Your task to perform on an android device: Open notification settings Image 0: 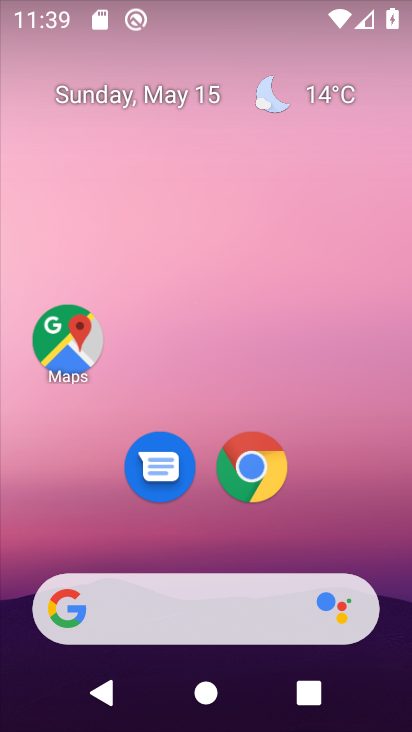
Step 0: drag from (207, 538) to (222, 220)
Your task to perform on an android device: Open notification settings Image 1: 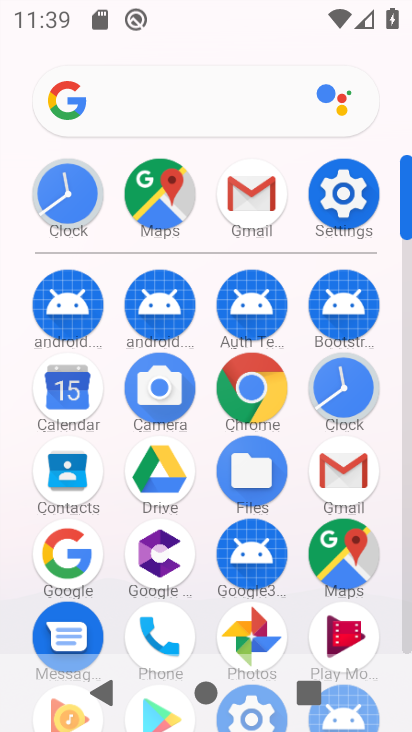
Step 1: click (343, 187)
Your task to perform on an android device: Open notification settings Image 2: 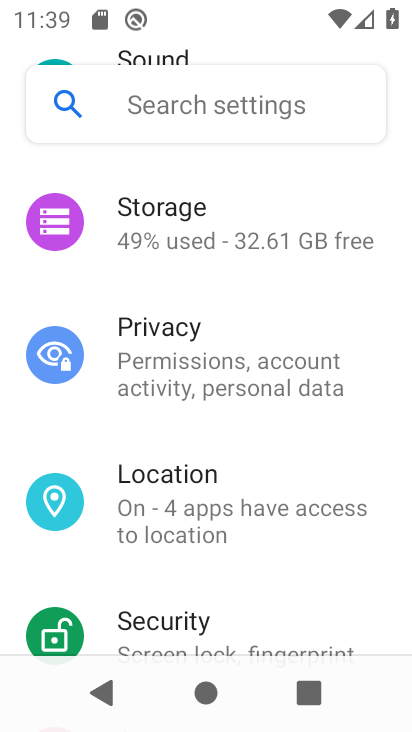
Step 2: drag from (194, 188) to (190, 731)
Your task to perform on an android device: Open notification settings Image 3: 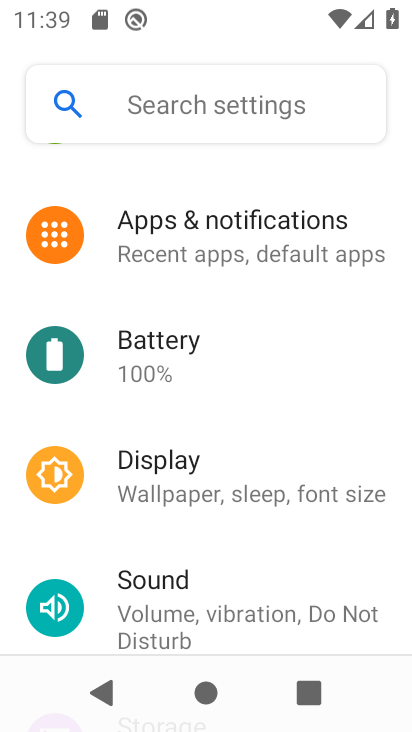
Step 3: click (191, 229)
Your task to perform on an android device: Open notification settings Image 4: 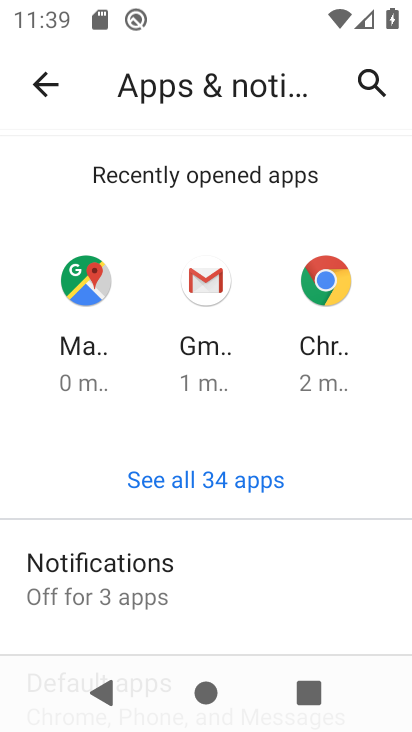
Step 4: click (188, 580)
Your task to perform on an android device: Open notification settings Image 5: 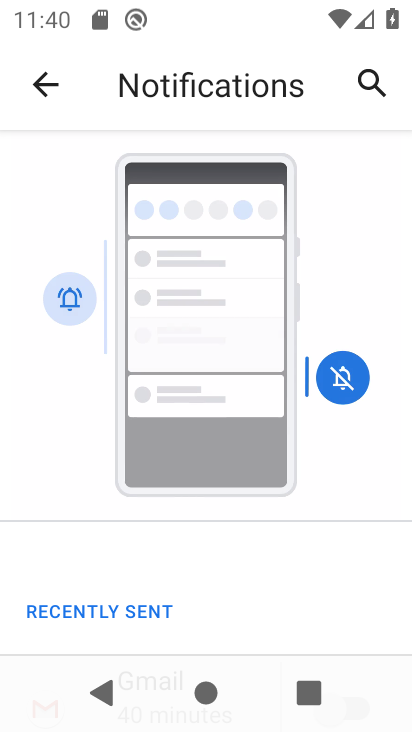
Step 5: drag from (227, 595) to (222, 336)
Your task to perform on an android device: Open notification settings Image 6: 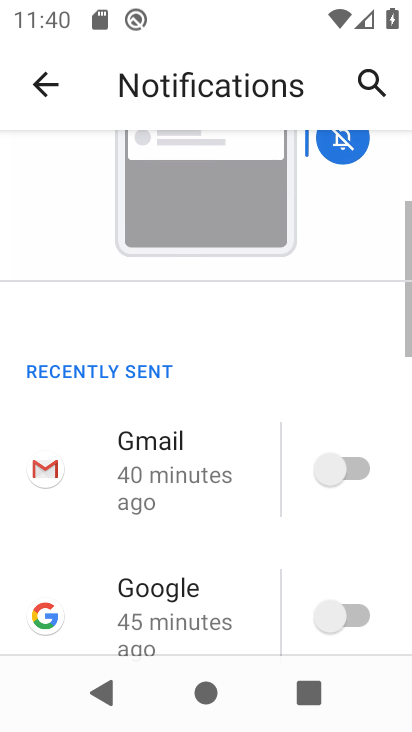
Step 6: click (201, 273)
Your task to perform on an android device: Open notification settings Image 7: 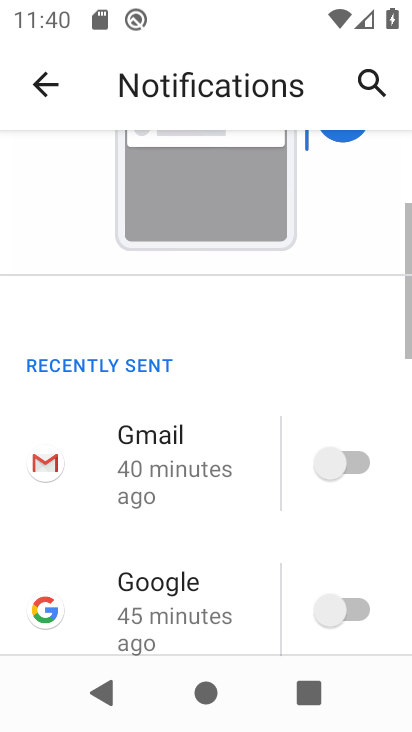
Step 7: drag from (249, 623) to (236, 318)
Your task to perform on an android device: Open notification settings Image 8: 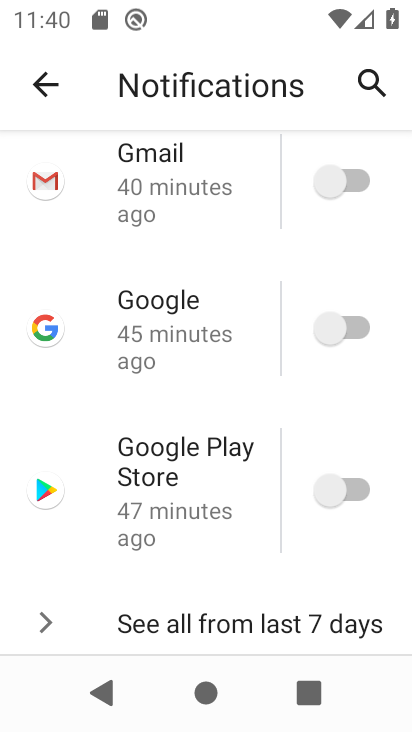
Step 8: drag from (233, 610) to (224, 217)
Your task to perform on an android device: Open notification settings Image 9: 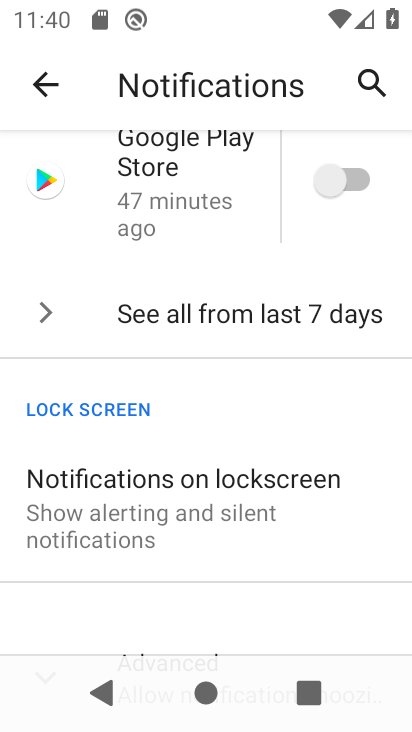
Step 9: drag from (247, 557) to (283, 128)
Your task to perform on an android device: Open notification settings Image 10: 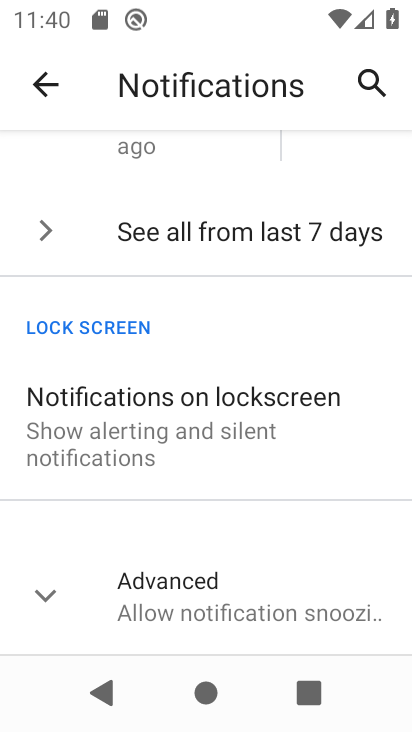
Step 10: click (63, 592)
Your task to perform on an android device: Open notification settings Image 11: 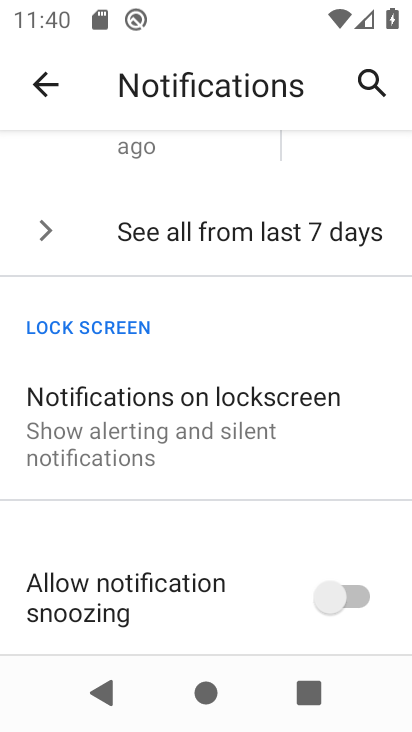
Step 11: task complete